Your task to perform on an android device: find which apps use the phone's location Image 0: 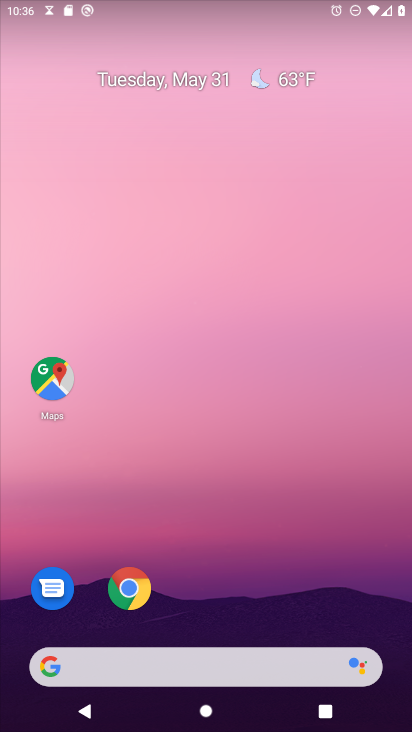
Step 0: drag from (271, 627) to (275, 41)
Your task to perform on an android device: find which apps use the phone's location Image 1: 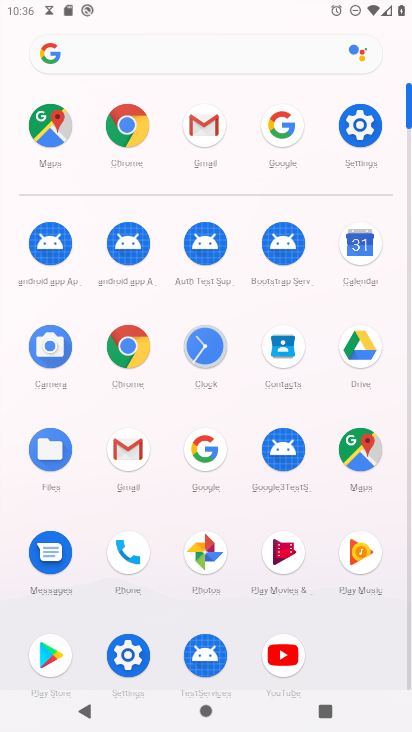
Step 1: click (359, 124)
Your task to perform on an android device: find which apps use the phone's location Image 2: 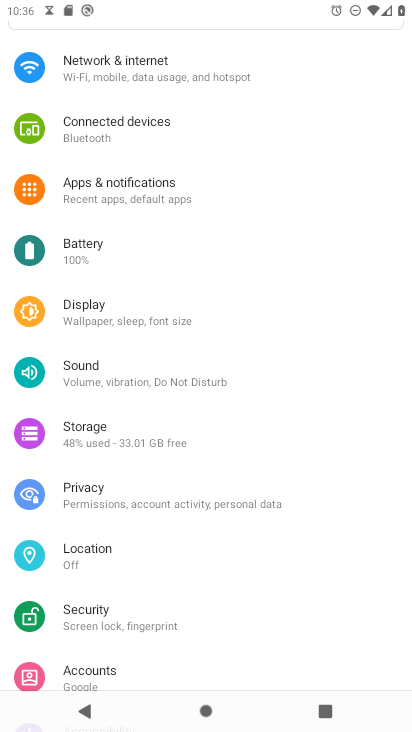
Step 2: drag from (211, 150) to (194, 388)
Your task to perform on an android device: find which apps use the phone's location Image 3: 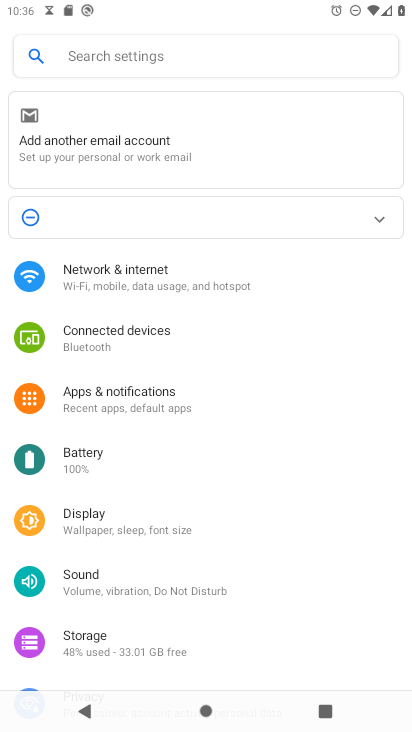
Step 3: drag from (150, 563) to (186, 420)
Your task to perform on an android device: find which apps use the phone's location Image 4: 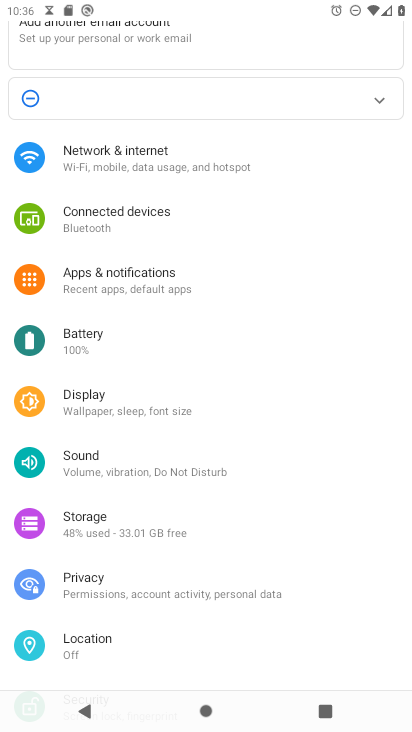
Step 4: drag from (128, 559) to (135, 410)
Your task to perform on an android device: find which apps use the phone's location Image 5: 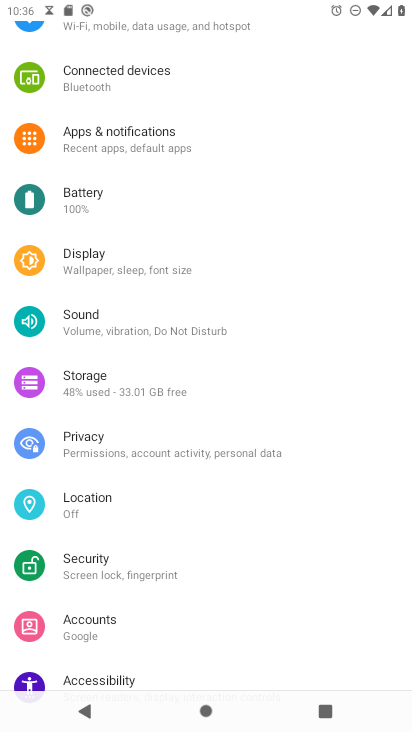
Step 5: click (107, 502)
Your task to perform on an android device: find which apps use the phone's location Image 6: 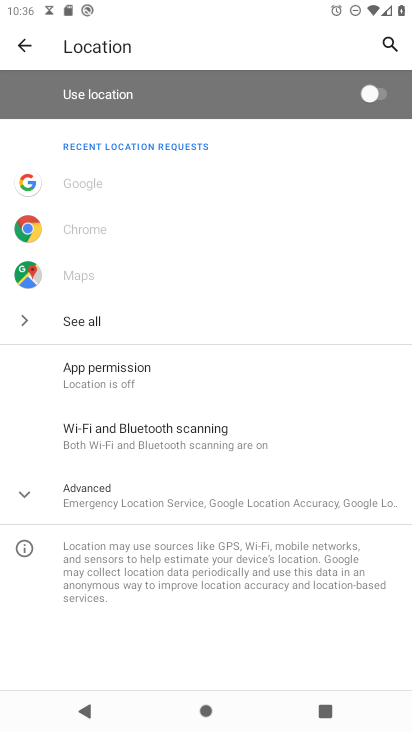
Step 6: click (133, 369)
Your task to perform on an android device: find which apps use the phone's location Image 7: 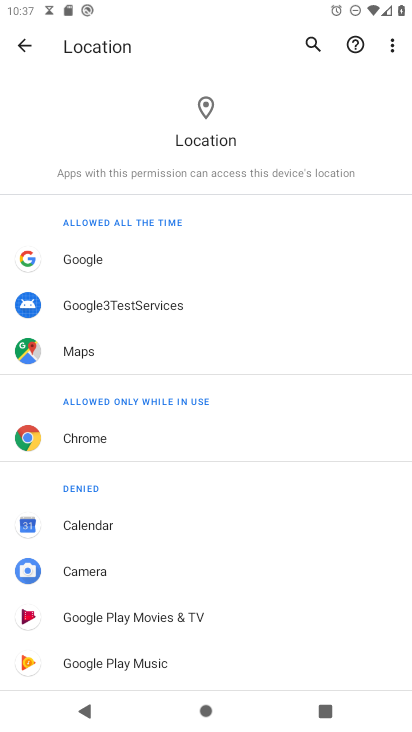
Step 7: click (77, 352)
Your task to perform on an android device: find which apps use the phone's location Image 8: 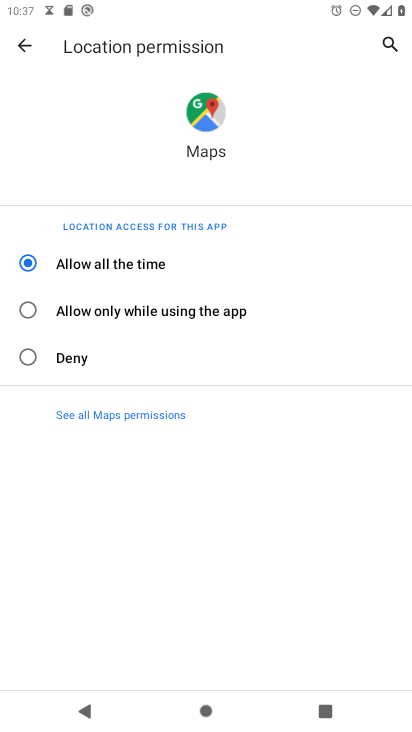
Step 8: task complete